Your task to perform on an android device: empty trash in the gmail app Image 0: 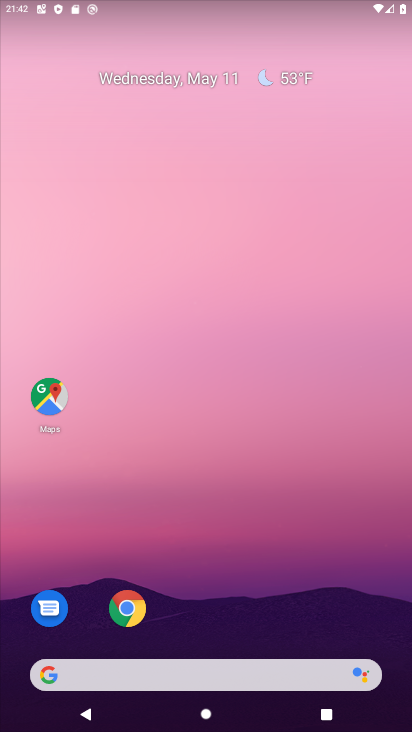
Step 0: drag from (225, 597) to (268, 186)
Your task to perform on an android device: empty trash in the gmail app Image 1: 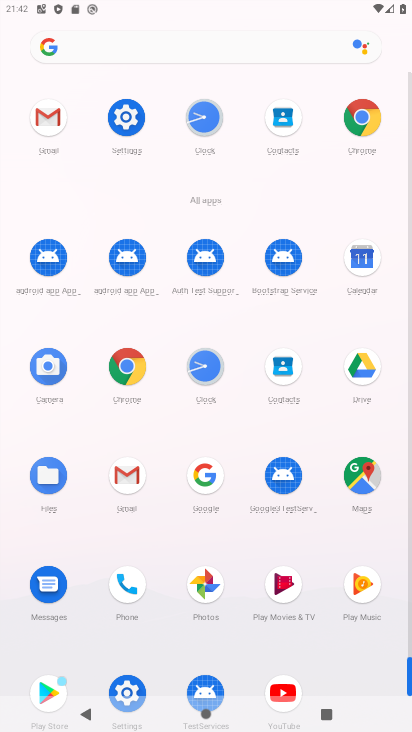
Step 1: click (136, 479)
Your task to perform on an android device: empty trash in the gmail app Image 2: 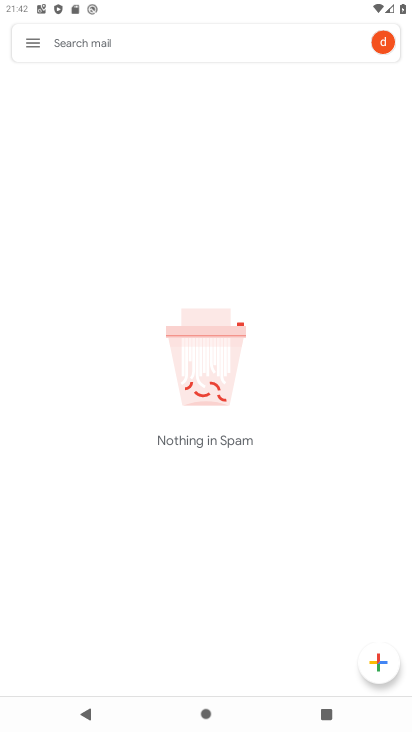
Step 2: click (32, 45)
Your task to perform on an android device: empty trash in the gmail app Image 3: 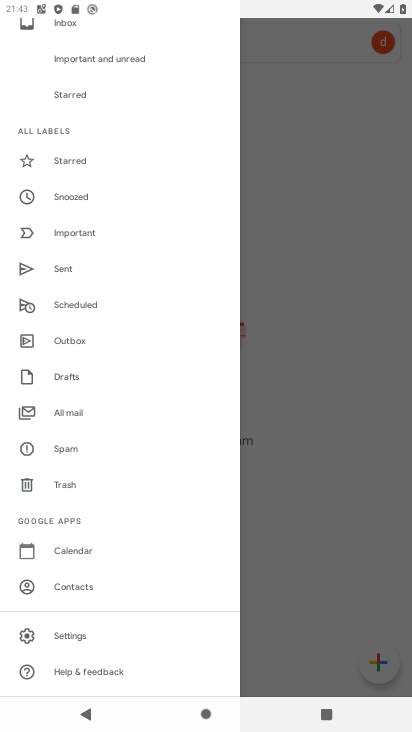
Step 3: click (77, 489)
Your task to perform on an android device: empty trash in the gmail app Image 4: 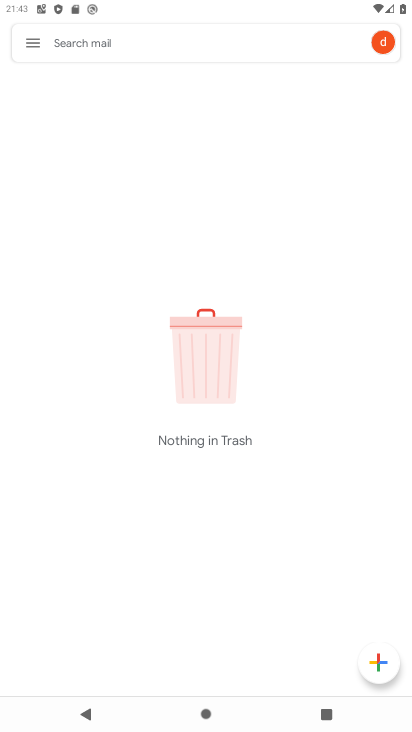
Step 4: task complete